Your task to perform on an android device: turn off notifications settings in the gmail app Image 0: 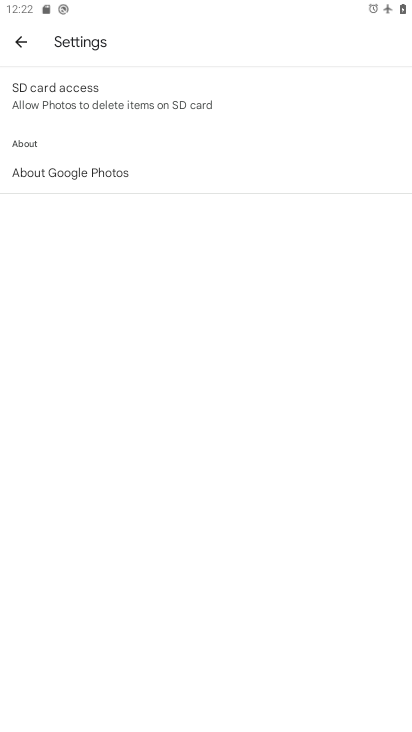
Step 0: drag from (213, 655) to (249, 233)
Your task to perform on an android device: turn off notifications settings in the gmail app Image 1: 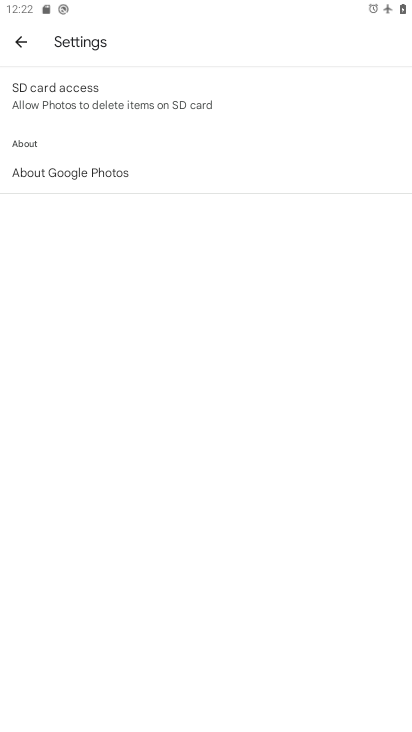
Step 1: press home button
Your task to perform on an android device: turn off notifications settings in the gmail app Image 2: 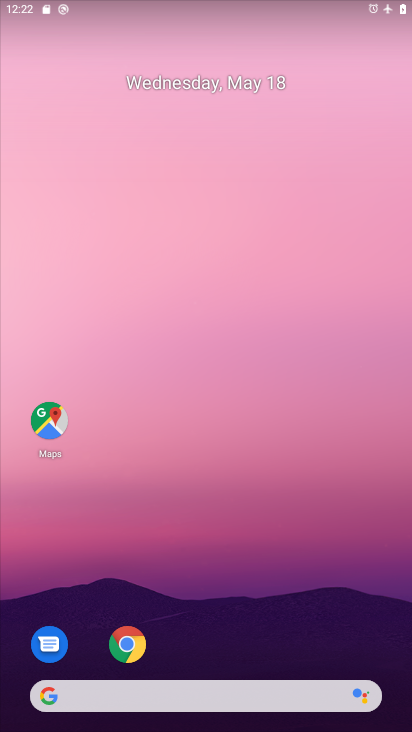
Step 2: drag from (223, 657) to (271, 86)
Your task to perform on an android device: turn off notifications settings in the gmail app Image 3: 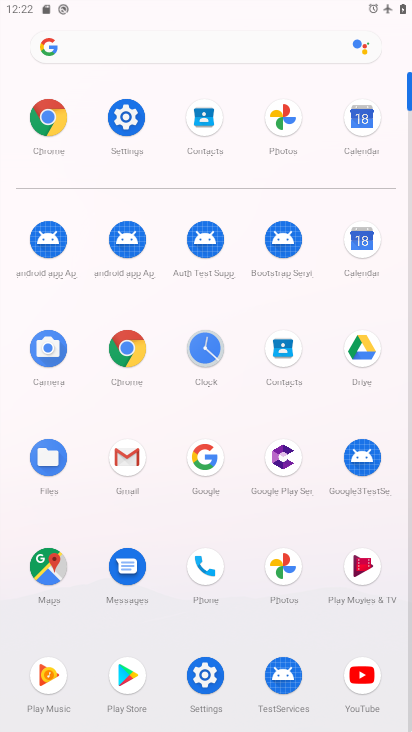
Step 3: click (124, 452)
Your task to perform on an android device: turn off notifications settings in the gmail app Image 4: 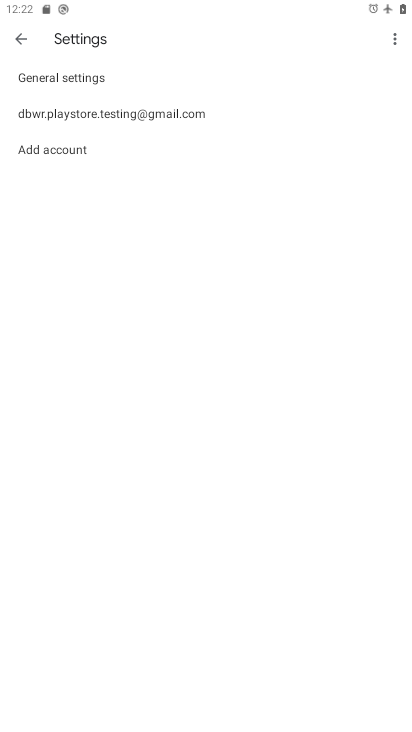
Step 4: click (112, 73)
Your task to perform on an android device: turn off notifications settings in the gmail app Image 5: 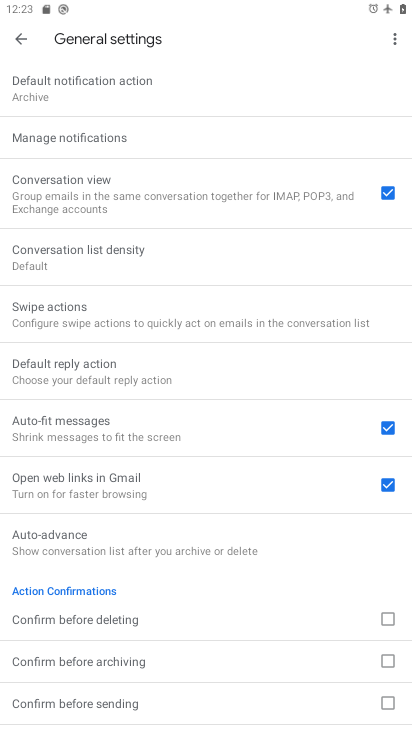
Step 5: click (132, 142)
Your task to perform on an android device: turn off notifications settings in the gmail app Image 6: 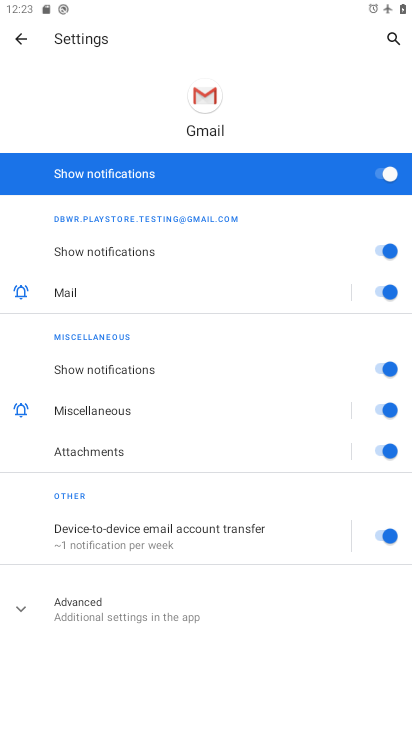
Step 6: click (380, 171)
Your task to perform on an android device: turn off notifications settings in the gmail app Image 7: 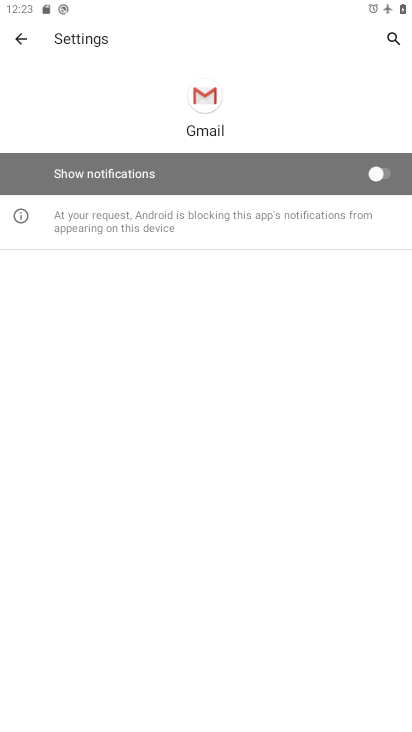
Step 7: task complete